Your task to perform on an android device: Open Youtube and go to "Your channel" Image 0: 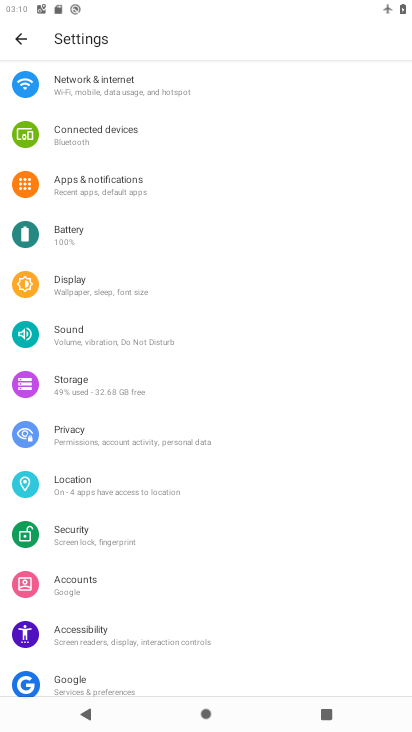
Step 0: press home button
Your task to perform on an android device: Open Youtube and go to "Your channel" Image 1: 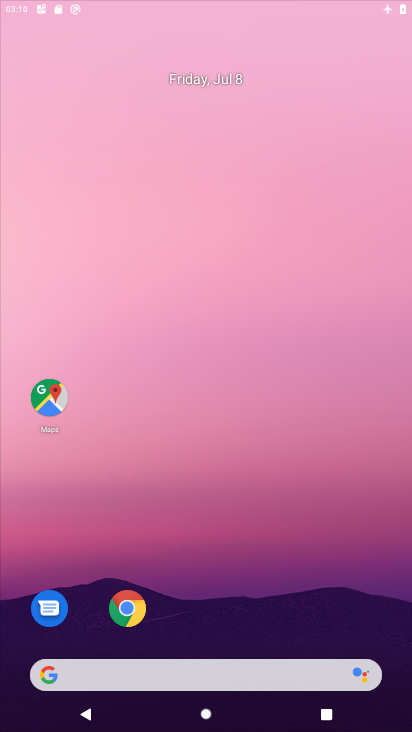
Step 1: drag from (182, 659) to (174, 456)
Your task to perform on an android device: Open Youtube and go to "Your channel" Image 2: 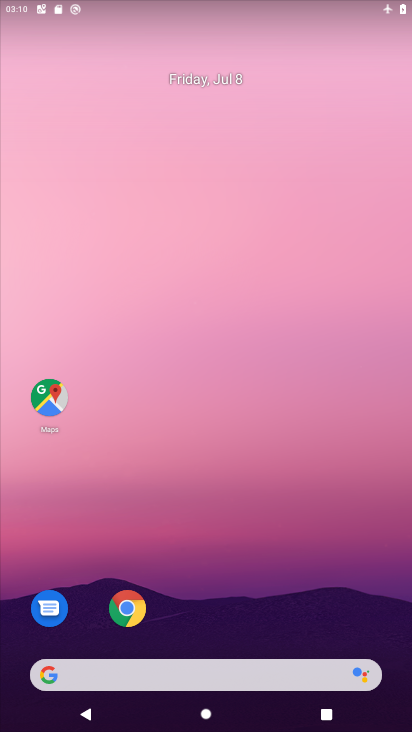
Step 2: drag from (206, 605) to (185, 150)
Your task to perform on an android device: Open Youtube and go to "Your channel" Image 3: 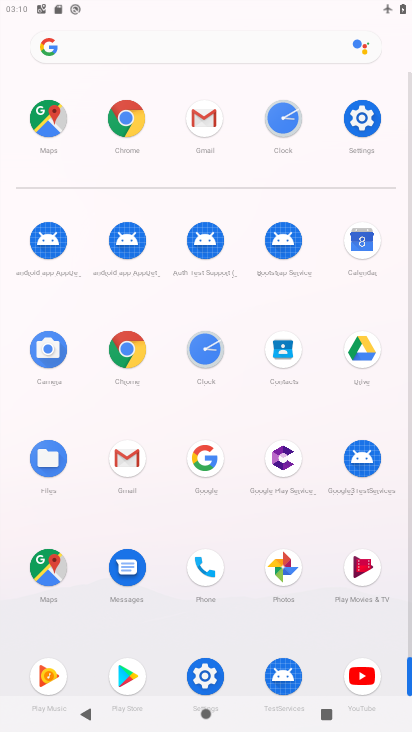
Step 3: click (358, 672)
Your task to perform on an android device: Open Youtube and go to "Your channel" Image 4: 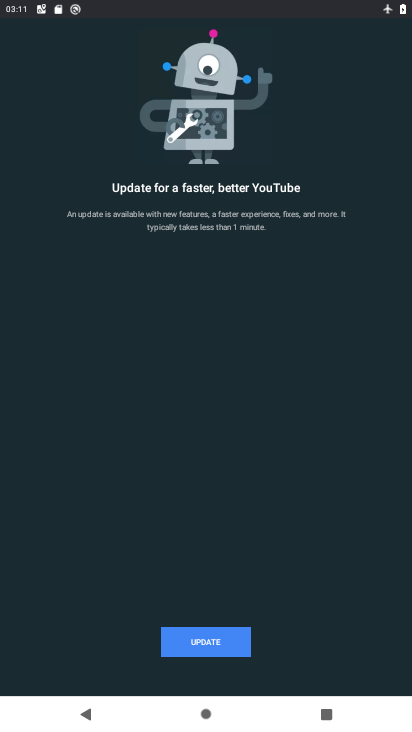
Step 4: task complete